Your task to perform on an android device: Go to Google Image 0: 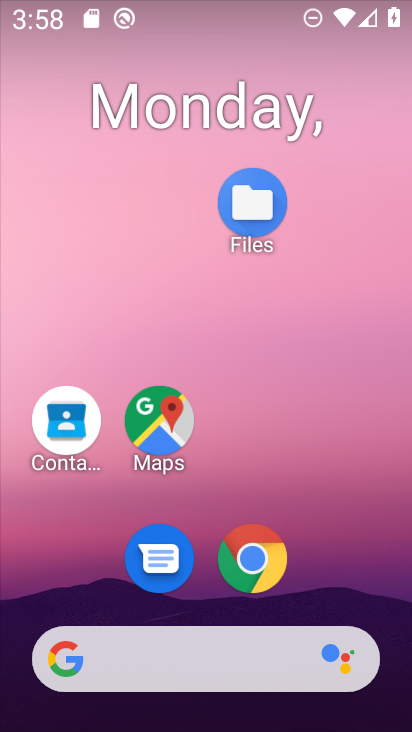
Step 0: drag from (256, 620) to (280, 81)
Your task to perform on an android device: Go to Google Image 1: 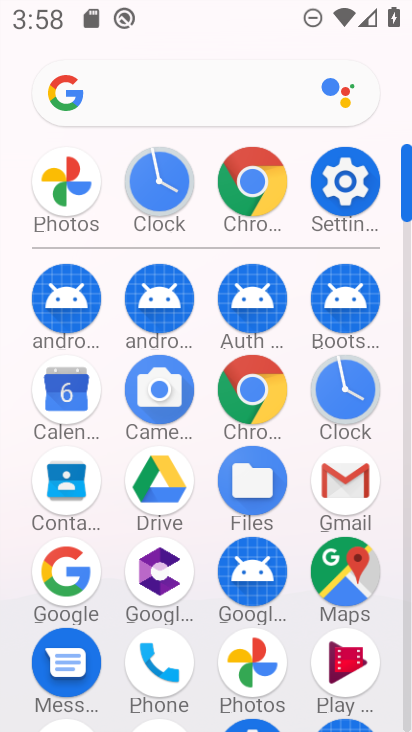
Step 1: click (76, 585)
Your task to perform on an android device: Go to Google Image 2: 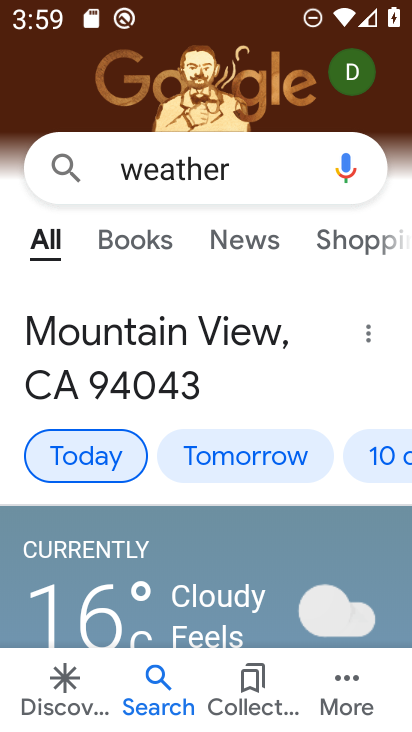
Step 2: task complete